Your task to perform on an android device: Open Reddit.com Image 0: 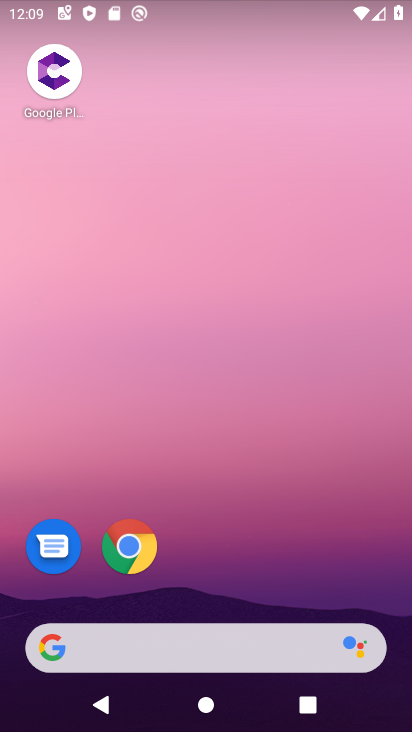
Step 0: drag from (167, 646) to (299, 146)
Your task to perform on an android device: Open Reddit.com Image 1: 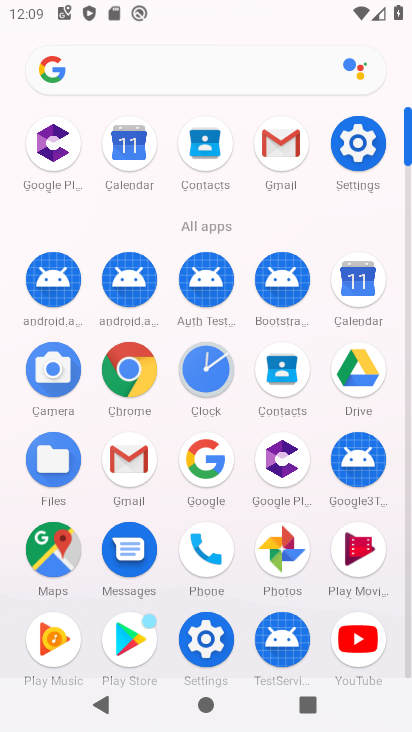
Step 1: click (128, 380)
Your task to perform on an android device: Open Reddit.com Image 2: 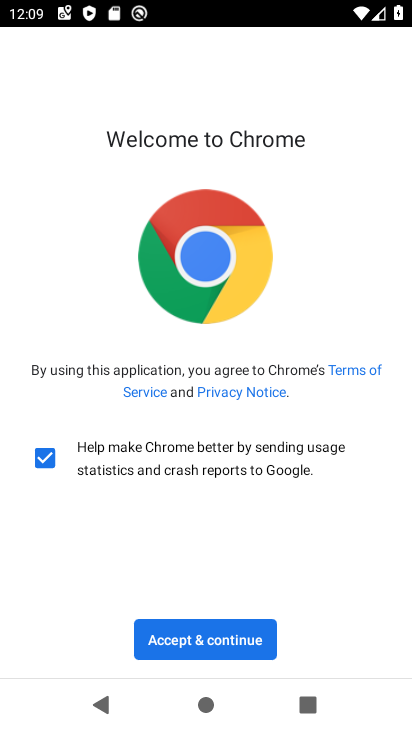
Step 2: click (196, 638)
Your task to perform on an android device: Open Reddit.com Image 3: 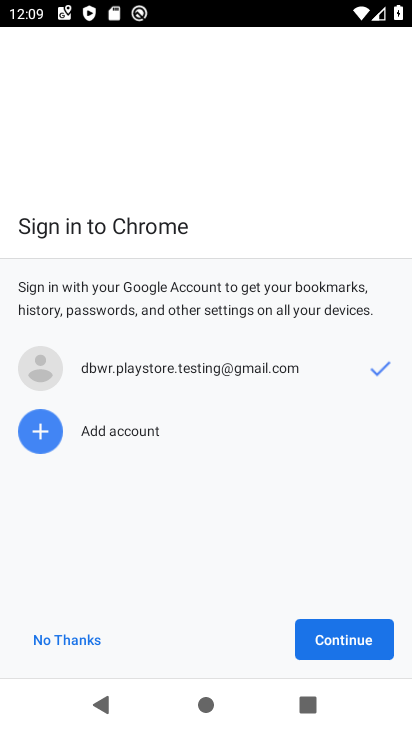
Step 3: click (327, 642)
Your task to perform on an android device: Open Reddit.com Image 4: 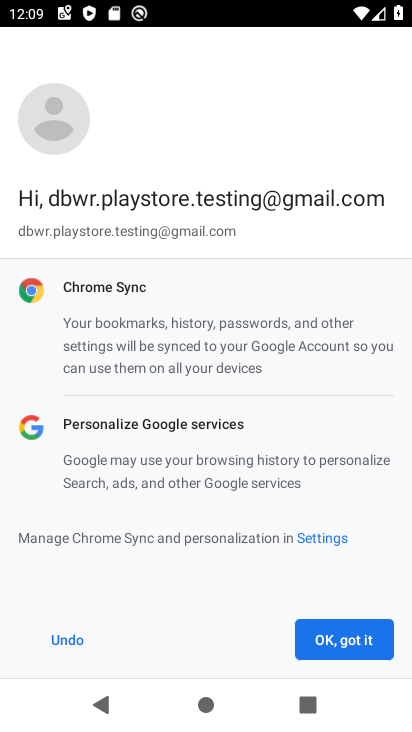
Step 4: click (348, 632)
Your task to perform on an android device: Open Reddit.com Image 5: 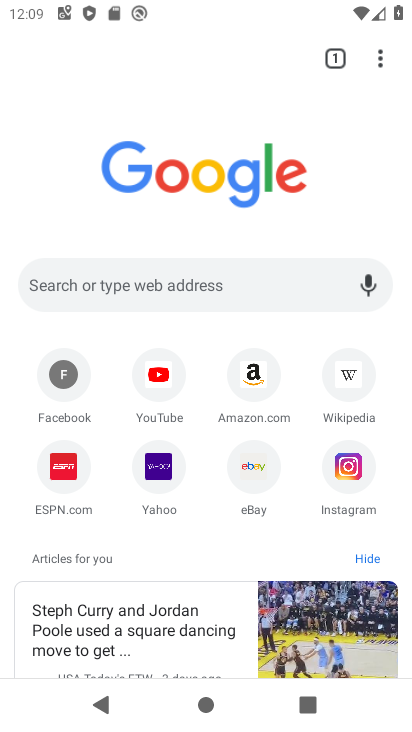
Step 5: drag from (380, 54) to (302, 117)
Your task to perform on an android device: Open Reddit.com Image 6: 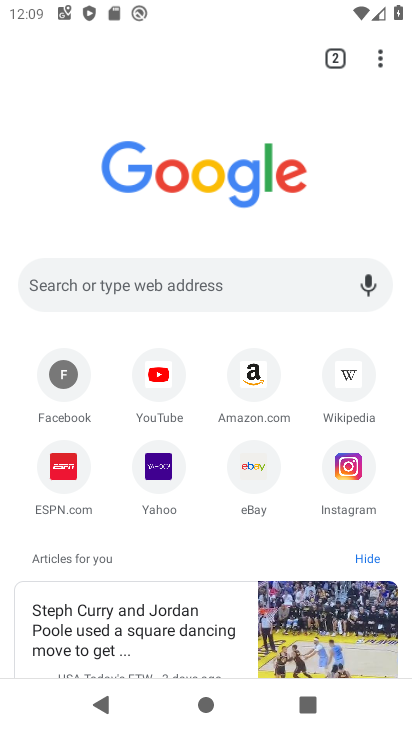
Step 6: click (101, 281)
Your task to perform on an android device: Open Reddit.com Image 7: 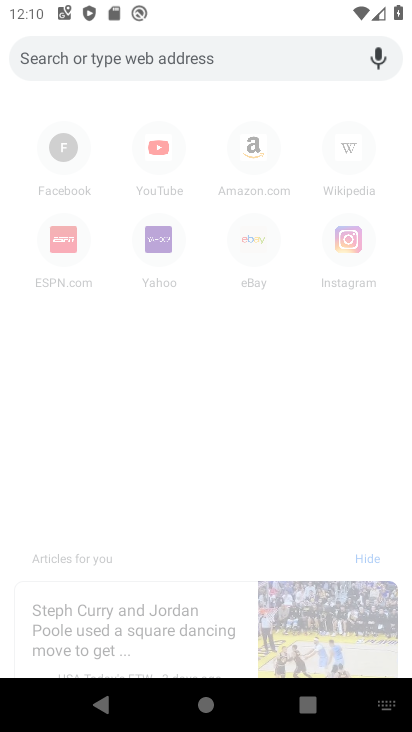
Step 7: type "reddit.com"
Your task to perform on an android device: Open Reddit.com Image 8: 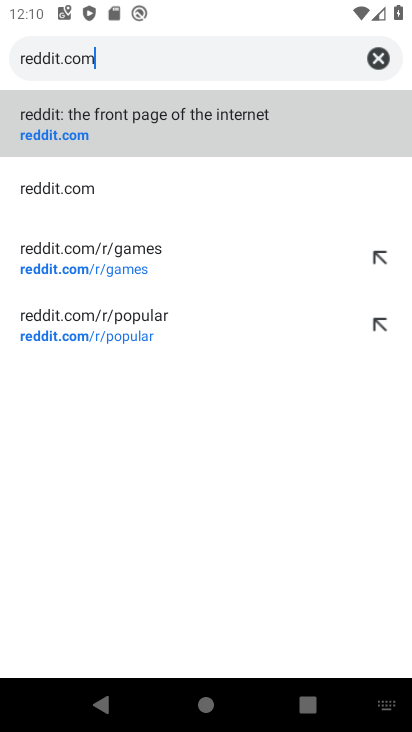
Step 8: click (146, 132)
Your task to perform on an android device: Open Reddit.com Image 9: 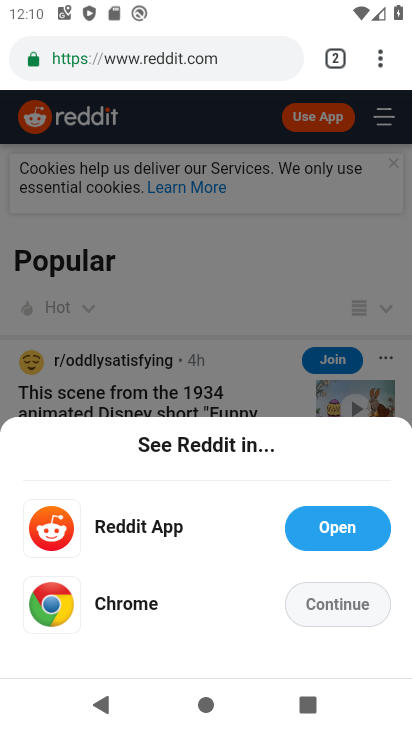
Step 9: task complete